Your task to perform on an android device: Go to display settings Image 0: 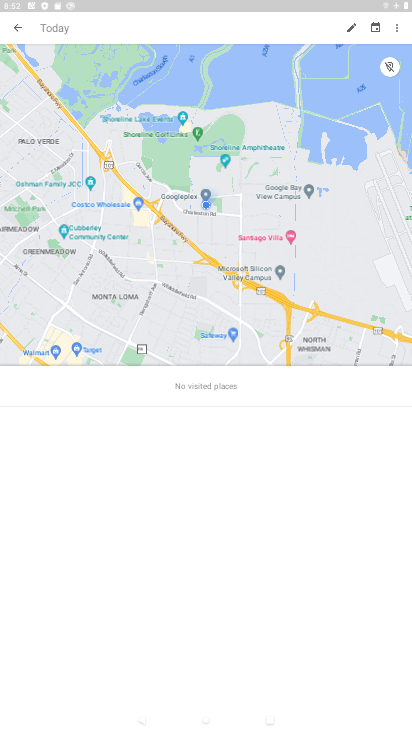
Step 0: press home button
Your task to perform on an android device: Go to display settings Image 1: 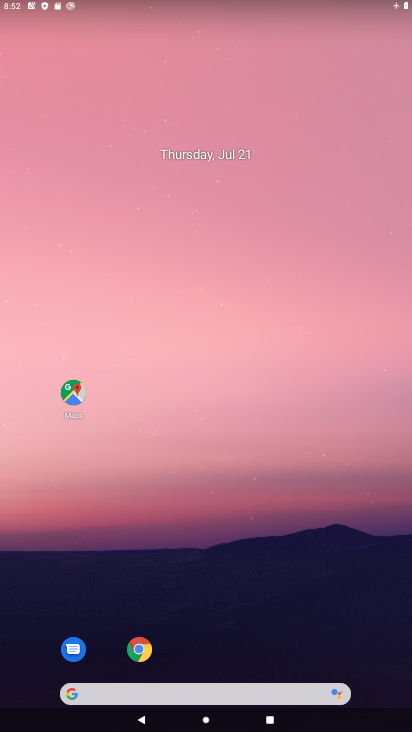
Step 1: drag from (199, 622) to (208, 121)
Your task to perform on an android device: Go to display settings Image 2: 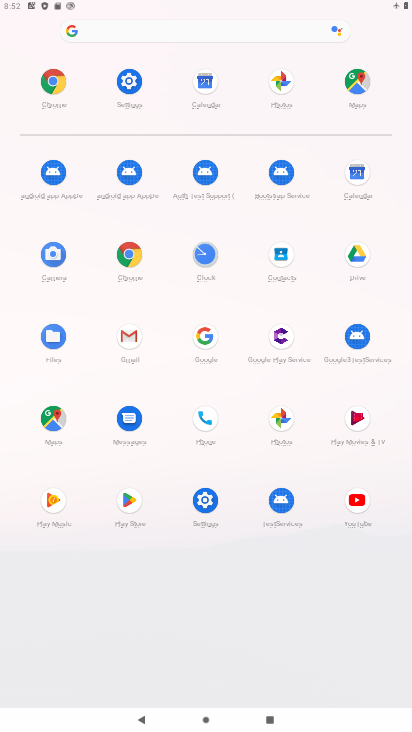
Step 2: click (209, 504)
Your task to perform on an android device: Go to display settings Image 3: 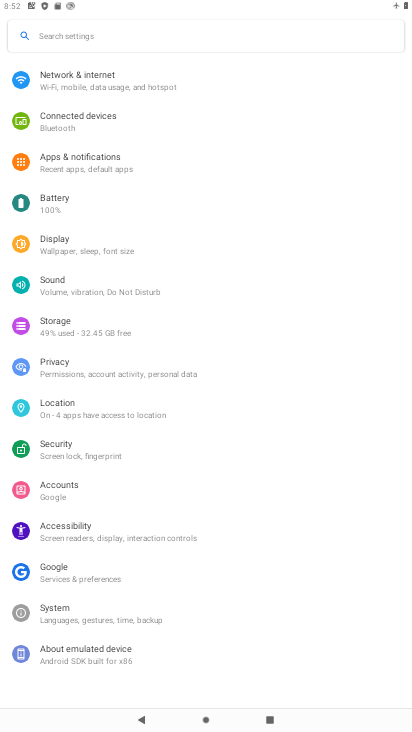
Step 3: click (78, 249)
Your task to perform on an android device: Go to display settings Image 4: 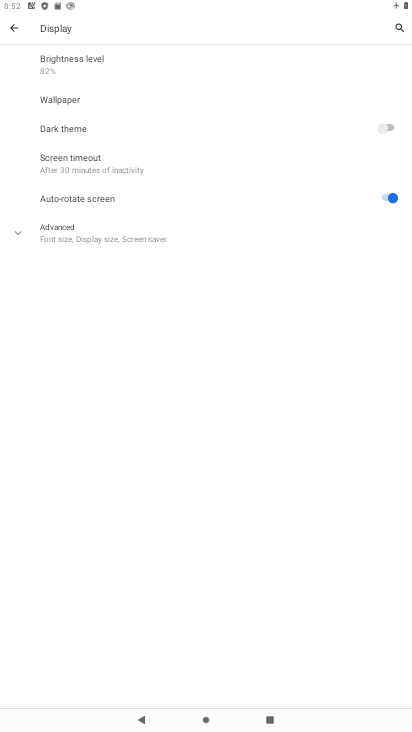
Step 4: task complete